Your task to perform on an android device: find snoozed emails in the gmail app Image 0: 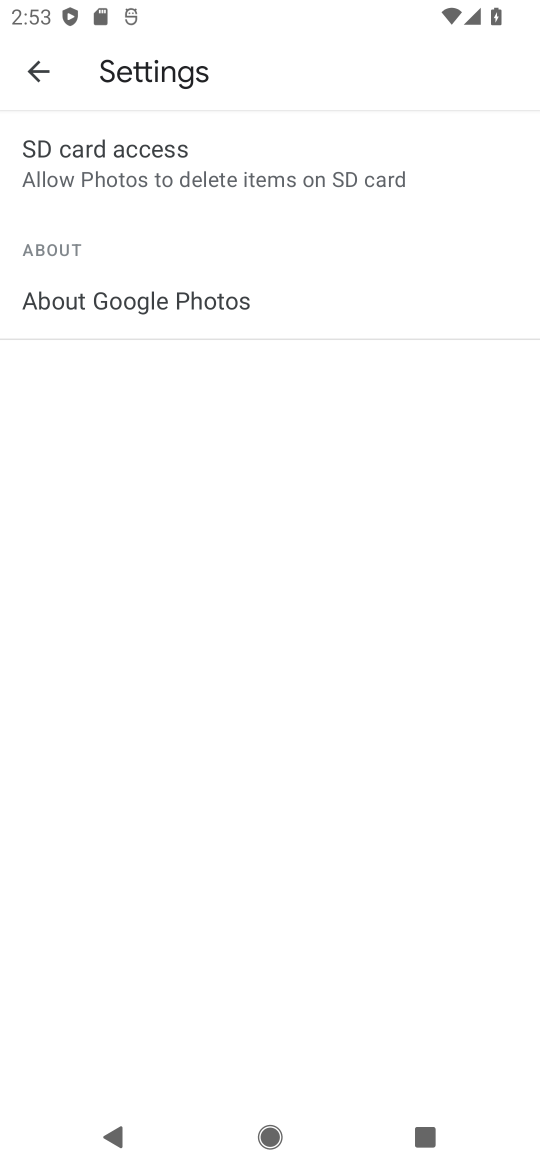
Step 0: press home button
Your task to perform on an android device: find snoozed emails in the gmail app Image 1: 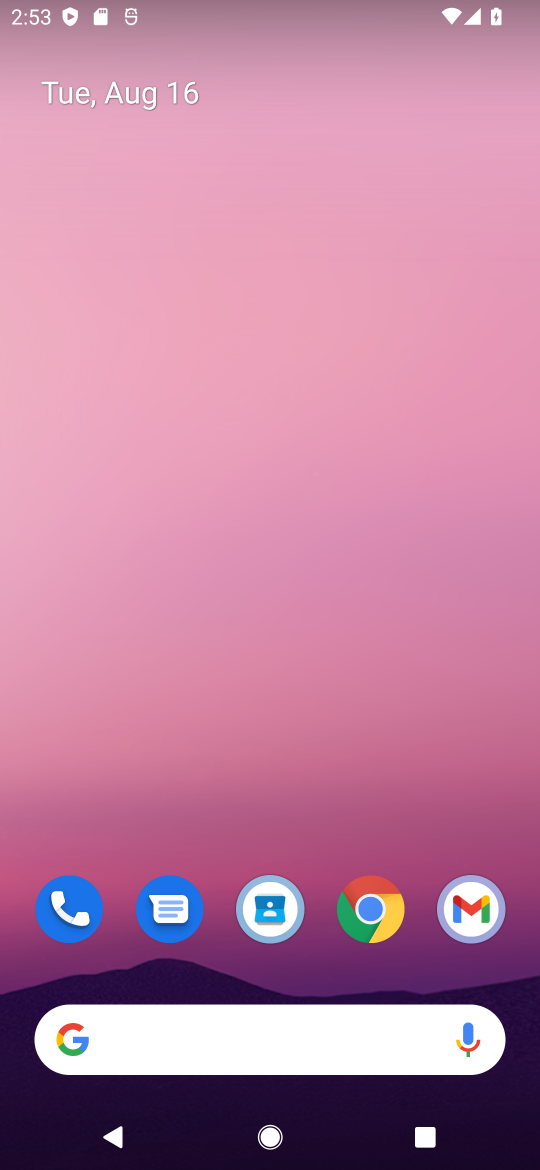
Step 1: drag from (220, 873) to (208, 127)
Your task to perform on an android device: find snoozed emails in the gmail app Image 2: 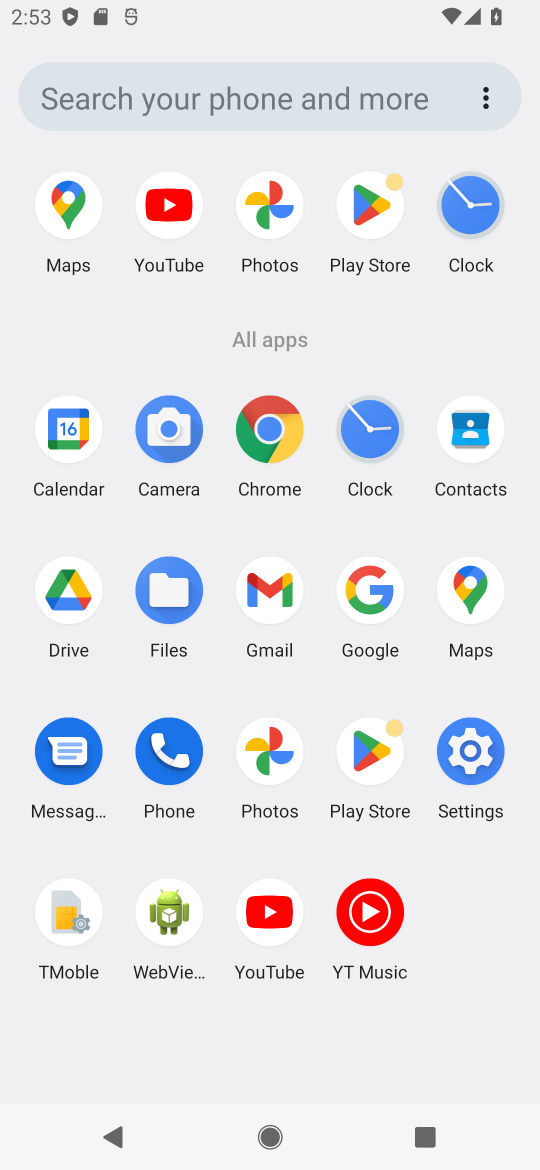
Step 2: click (262, 592)
Your task to perform on an android device: find snoozed emails in the gmail app Image 3: 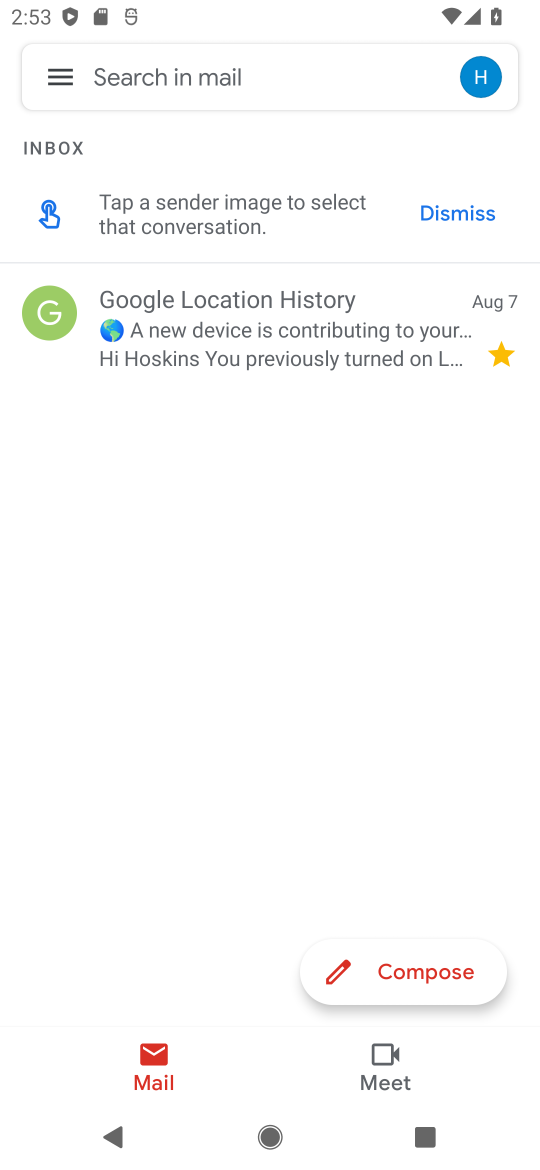
Step 3: click (54, 79)
Your task to perform on an android device: find snoozed emails in the gmail app Image 4: 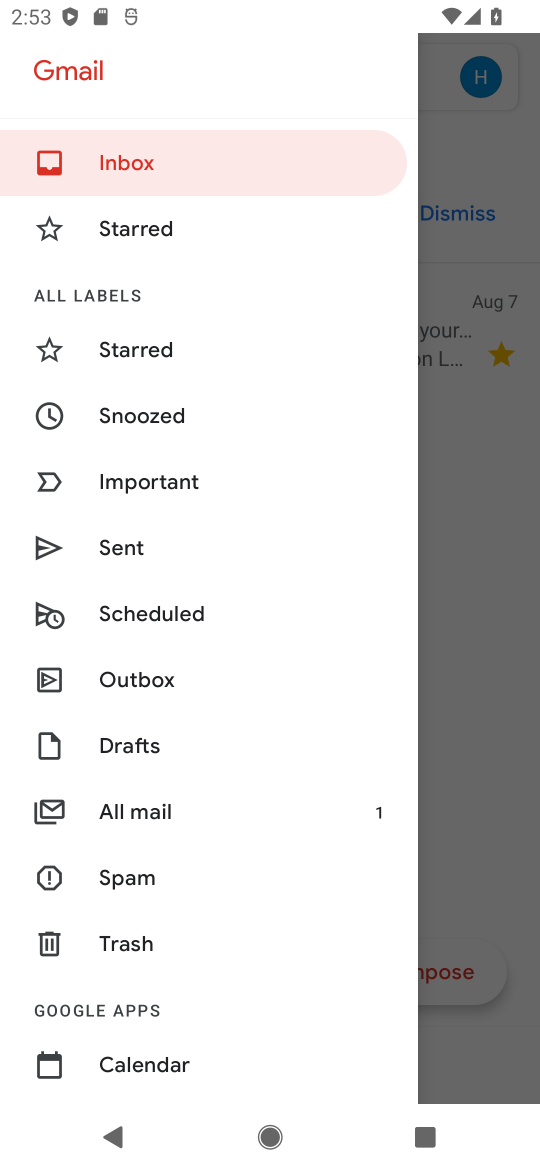
Step 4: click (138, 433)
Your task to perform on an android device: find snoozed emails in the gmail app Image 5: 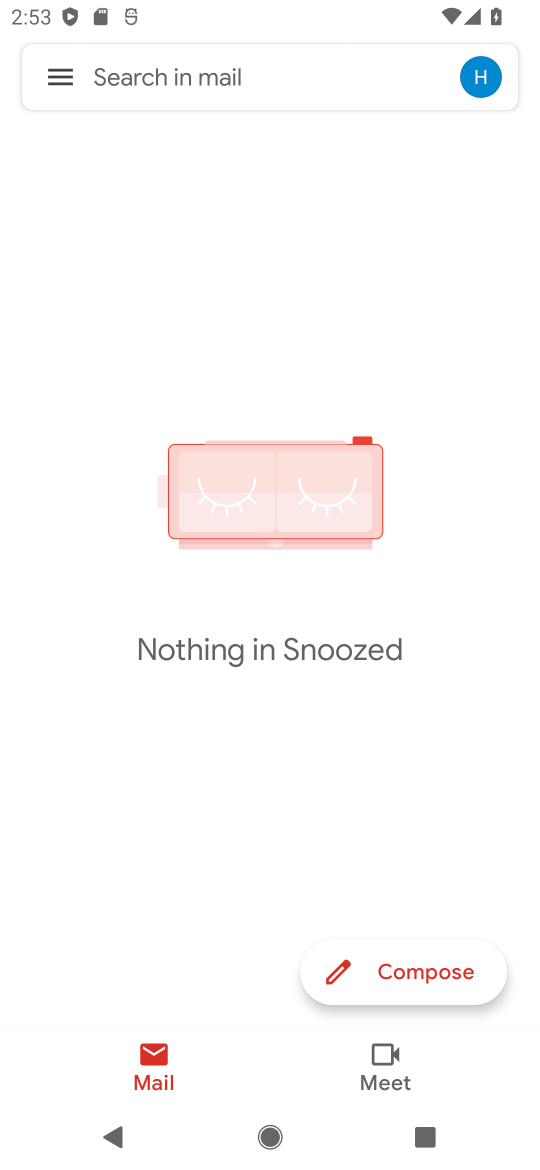
Step 5: task complete